Your task to perform on an android device: Add "bose soundsport free" to the cart on target.com Image 0: 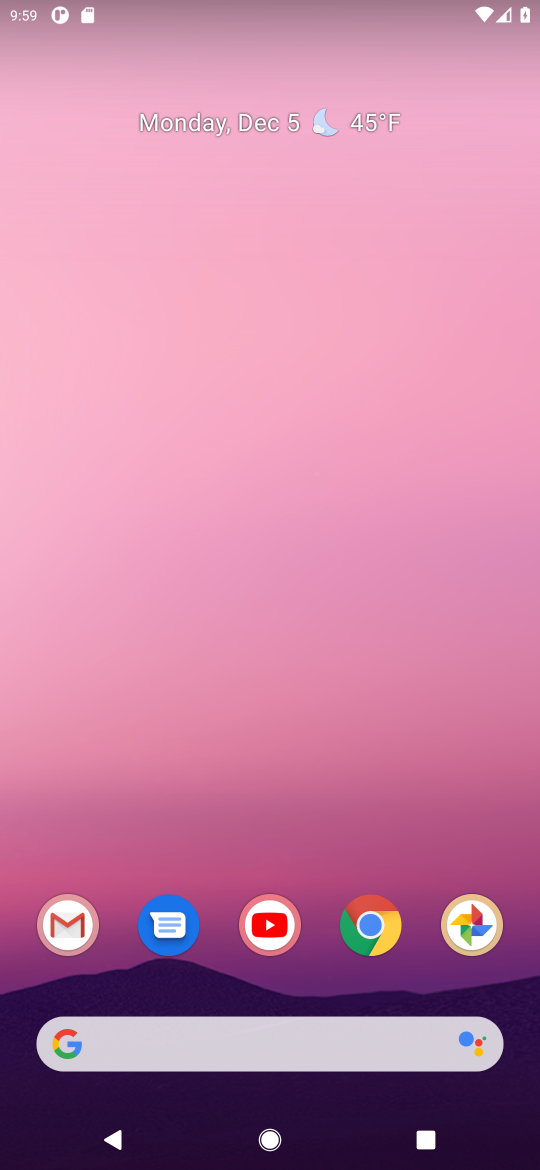
Step 0: click (367, 931)
Your task to perform on an android device: Add "bose soundsport free" to the cart on target.com Image 1: 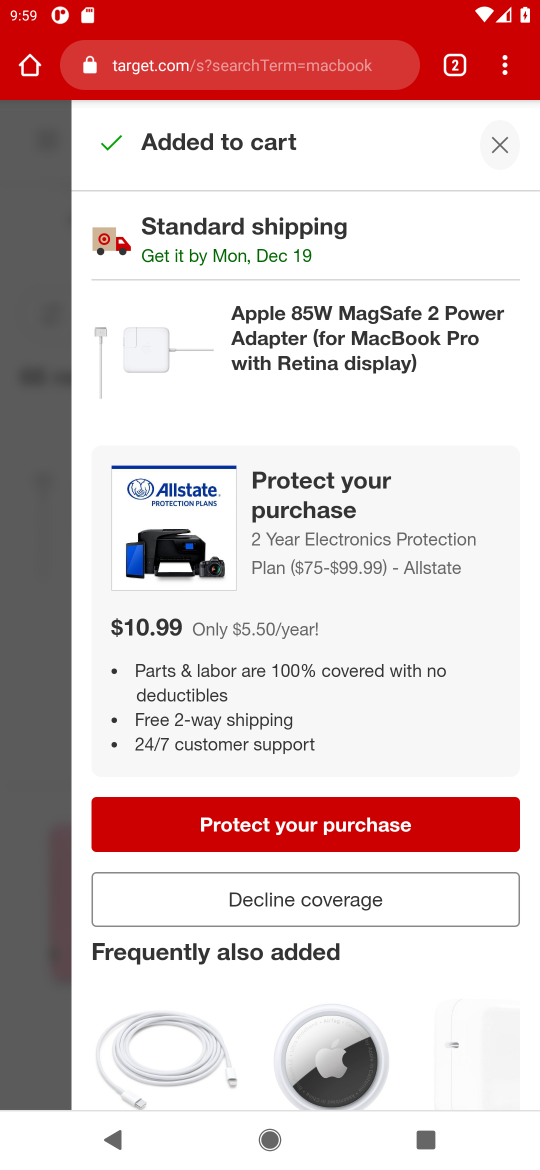
Step 1: click (505, 140)
Your task to perform on an android device: Add "bose soundsport free" to the cart on target.com Image 2: 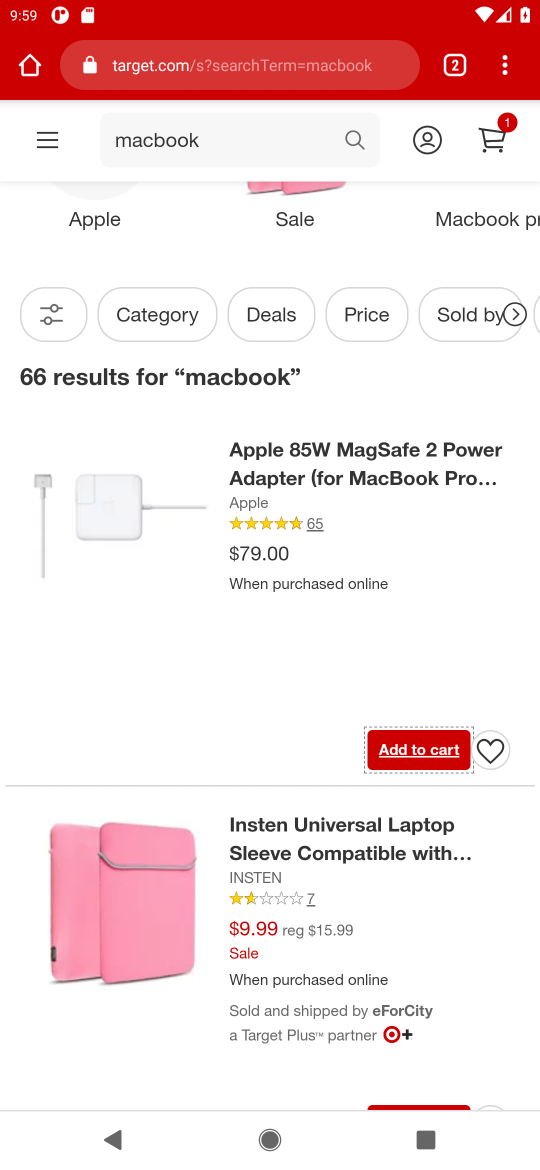
Step 2: click (137, 144)
Your task to perform on an android device: Add "bose soundsport free" to the cart on target.com Image 3: 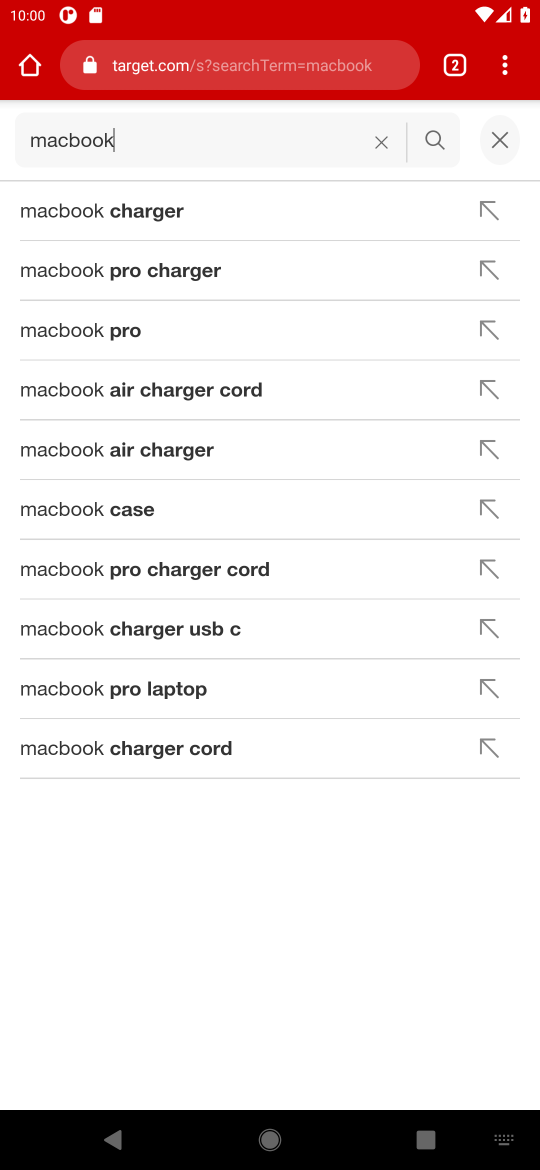
Step 3: click (376, 143)
Your task to perform on an android device: Add "bose soundsport free" to the cart on target.com Image 4: 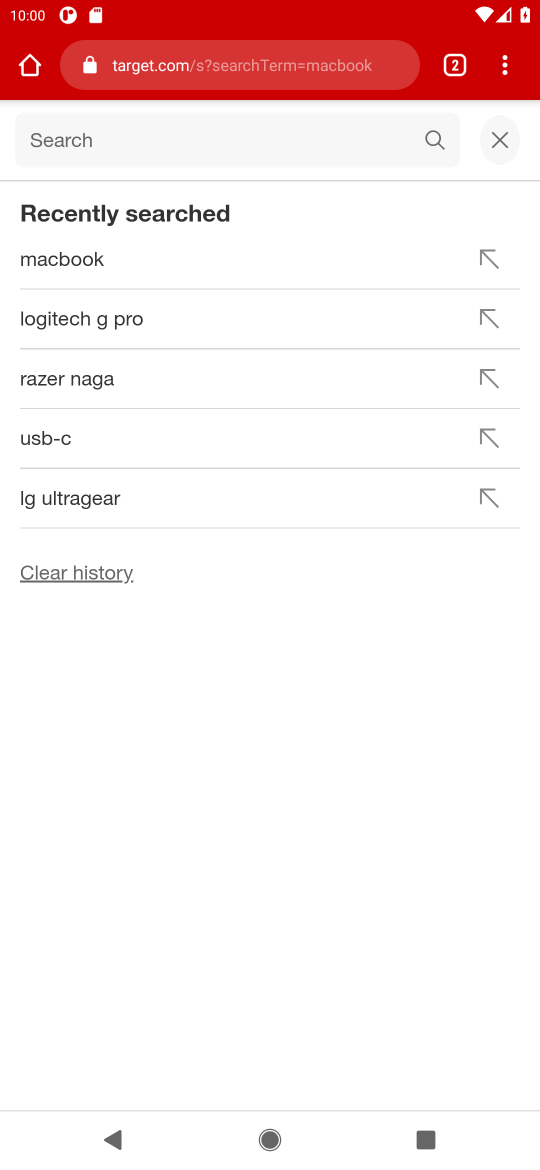
Step 4: type "bose soundsport free"
Your task to perform on an android device: Add "bose soundsport free" to the cart on target.com Image 5: 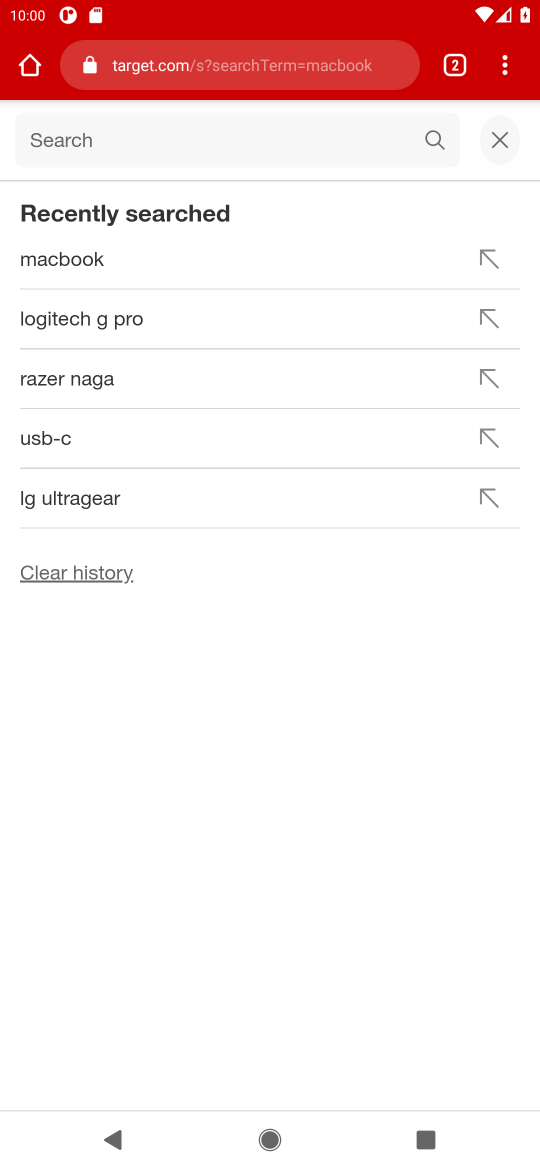
Step 5: click (99, 139)
Your task to perform on an android device: Add "bose soundsport free" to the cart on target.com Image 6: 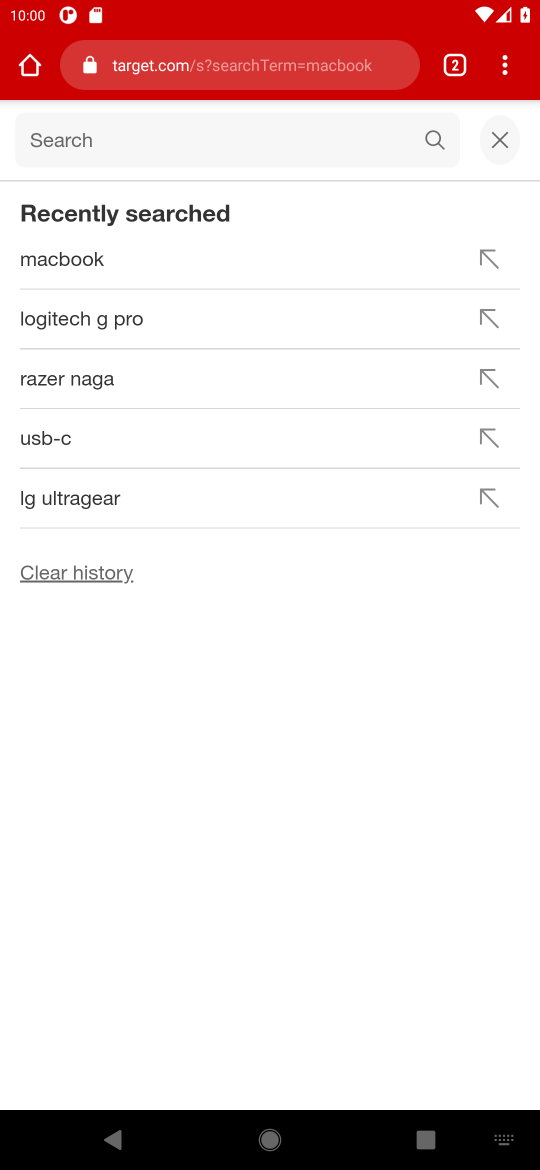
Step 6: type "bose soundsport free"
Your task to perform on an android device: Add "bose soundsport free" to the cart on target.com Image 7: 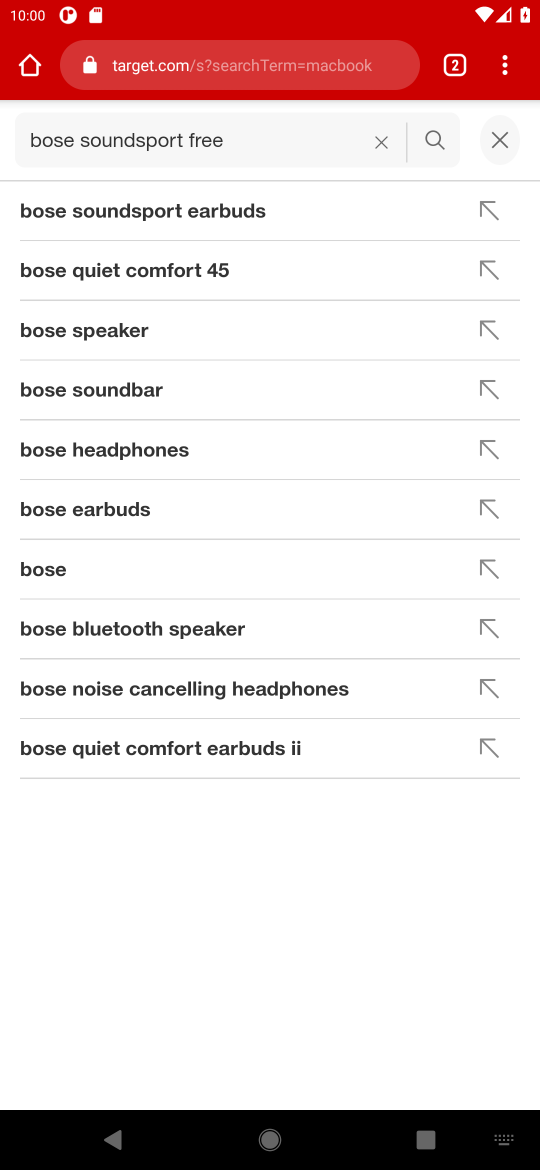
Step 7: click (439, 138)
Your task to perform on an android device: Add "bose soundsport free" to the cart on target.com Image 8: 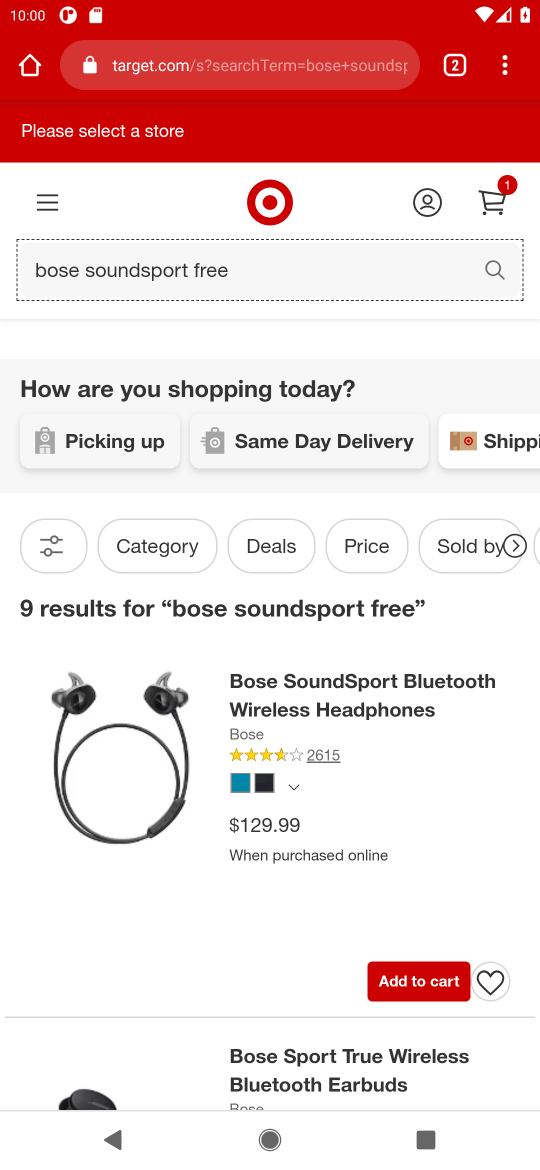
Step 8: task complete